Your task to perform on an android device: Is it going to rain tomorrow? Image 0: 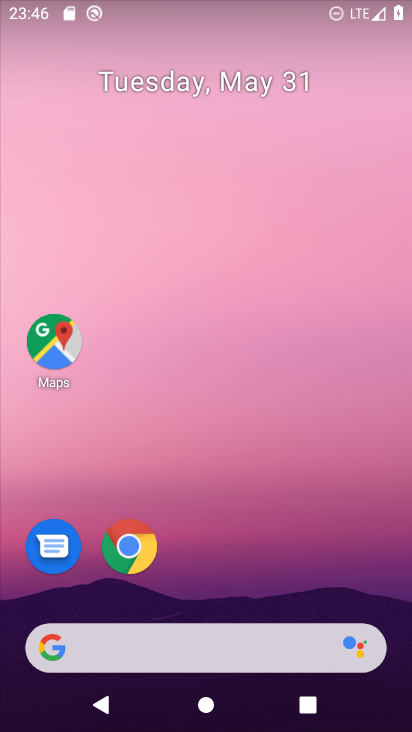
Step 0: drag from (0, 247) to (362, 274)
Your task to perform on an android device: Is it going to rain tomorrow? Image 1: 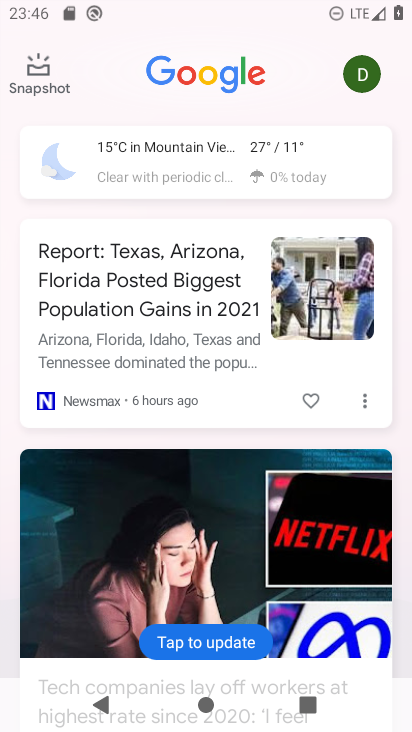
Step 1: click (242, 154)
Your task to perform on an android device: Is it going to rain tomorrow? Image 2: 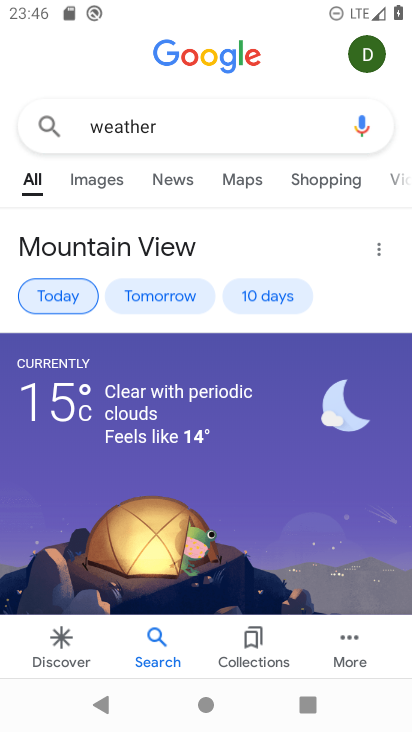
Step 2: click (169, 297)
Your task to perform on an android device: Is it going to rain tomorrow? Image 3: 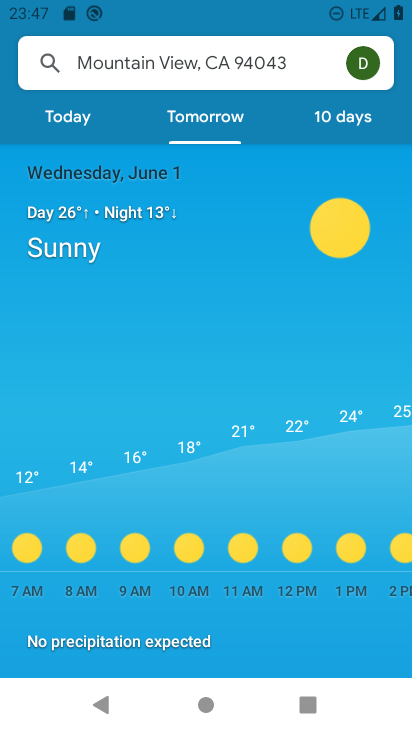
Step 3: task complete